Your task to perform on an android device: see sites visited before in the chrome app Image 0: 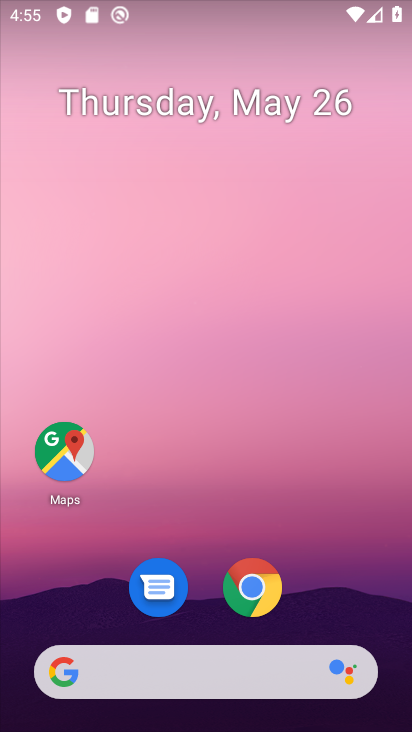
Step 0: click (256, 585)
Your task to perform on an android device: see sites visited before in the chrome app Image 1: 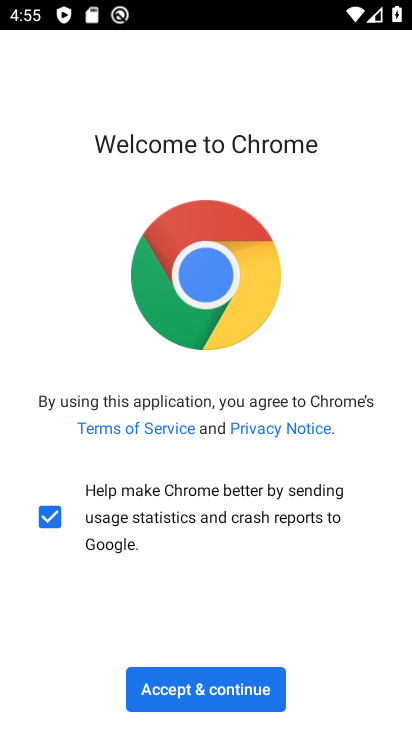
Step 1: click (194, 688)
Your task to perform on an android device: see sites visited before in the chrome app Image 2: 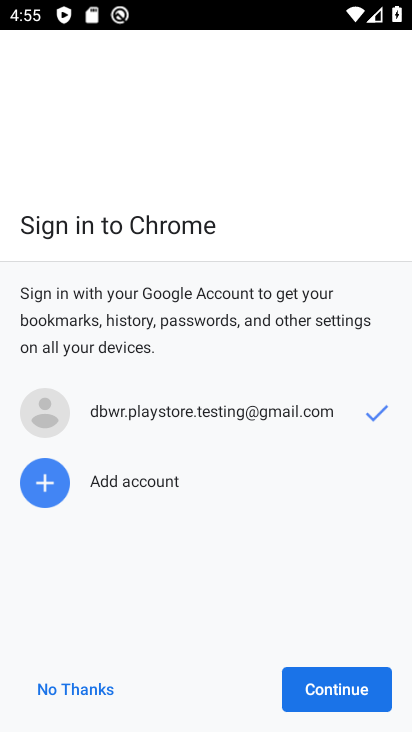
Step 2: click (322, 685)
Your task to perform on an android device: see sites visited before in the chrome app Image 3: 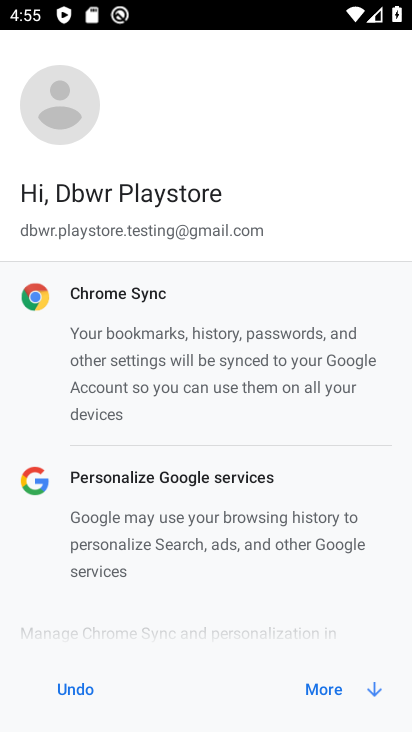
Step 3: click (322, 684)
Your task to perform on an android device: see sites visited before in the chrome app Image 4: 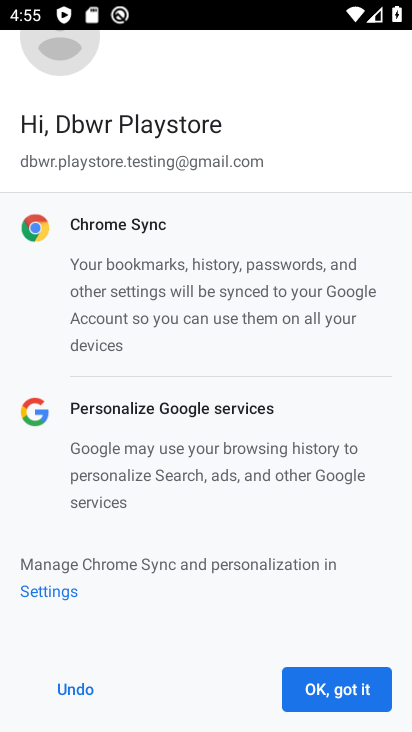
Step 4: click (322, 684)
Your task to perform on an android device: see sites visited before in the chrome app Image 5: 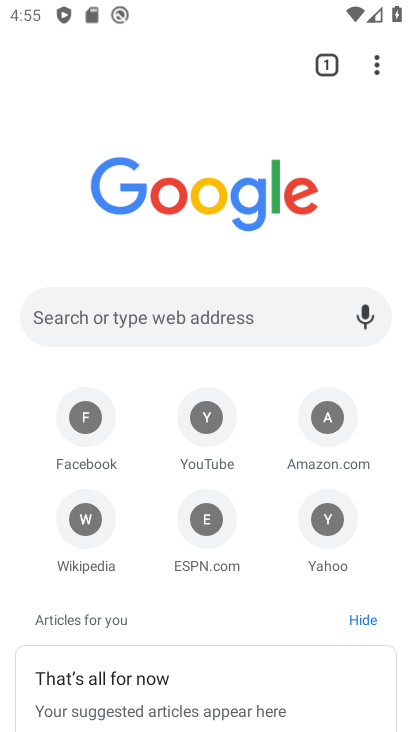
Step 5: click (376, 74)
Your task to perform on an android device: see sites visited before in the chrome app Image 6: 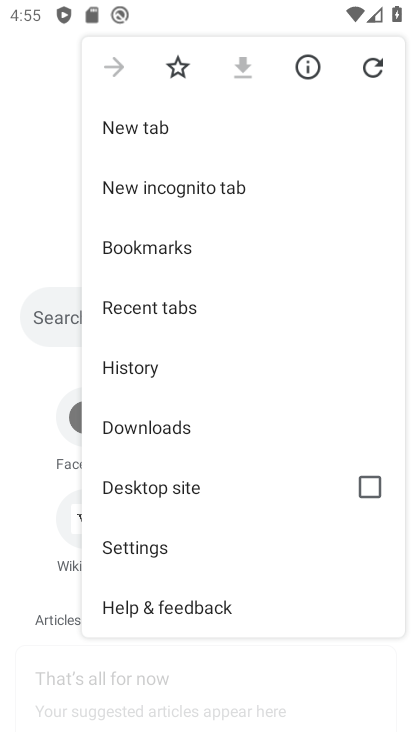
Step 6: click (134, 372)
Your task to perform on an android device: see sites visited before in the chrome app Image 7: 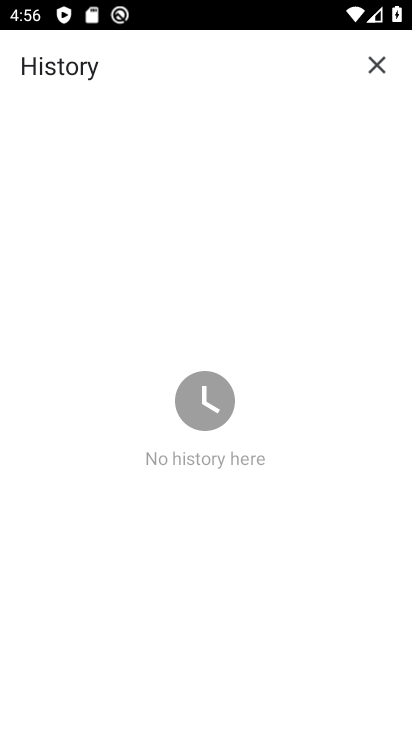
Step 7: task complete